Your task to perform on an android device: Turn on the flashlight Image 0: 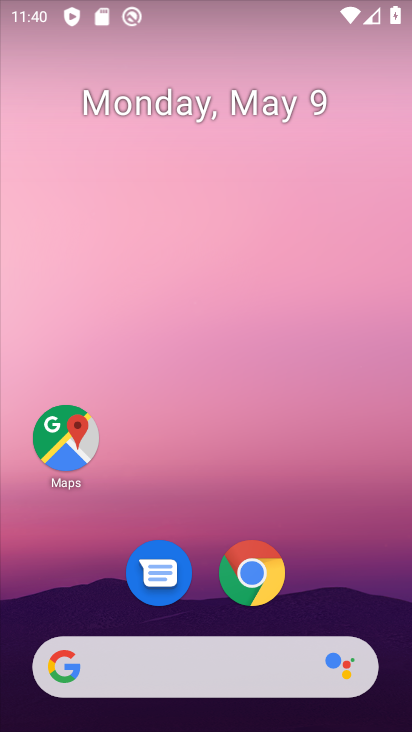
Step 0: drag from (189, 591) to (206, 65)
Your task to perform on an android device: Turn on the flashlight Image 1: 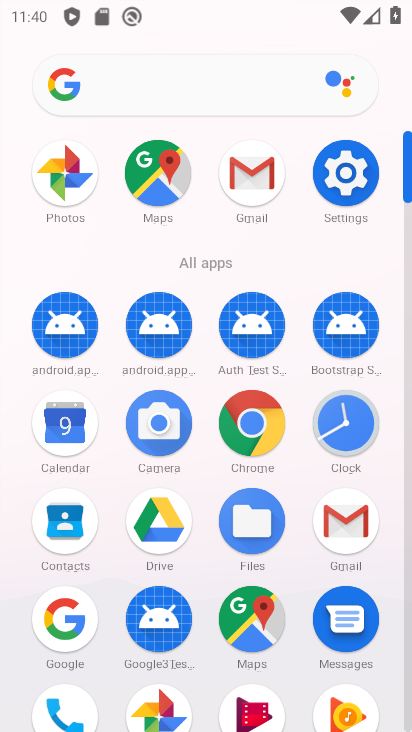
Step 1: click (342, 174)
Your task to perform on an android device: Turn on the flashlight Image 2: 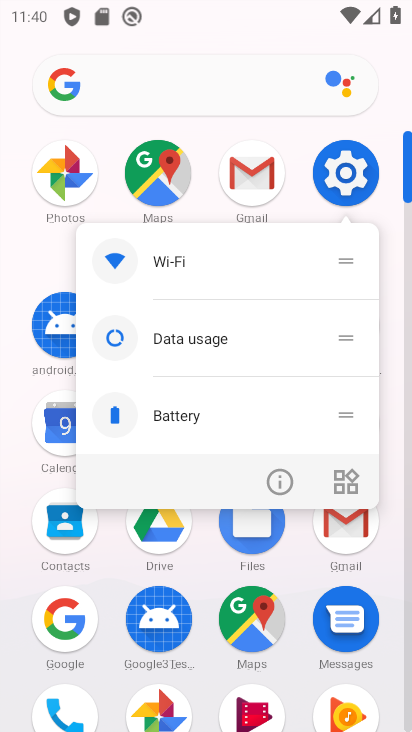
Step 2: click (274, 476)
Your task to perform on an android device: Turn on the flashlight Image 3: 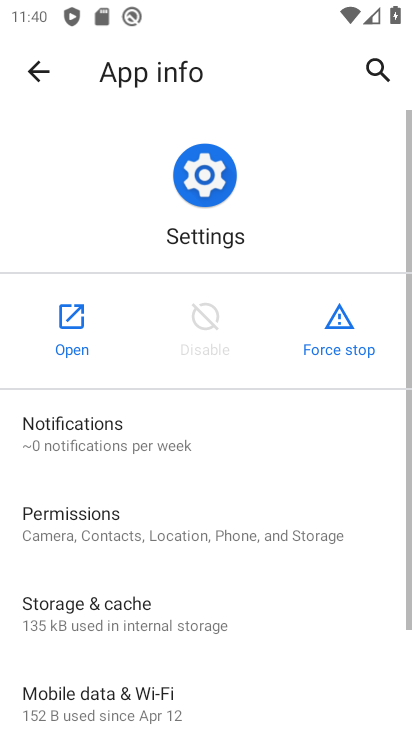
Step 3: click (67, 336)
Your task to perform on an android device: Turn on the flashlight Image 4: 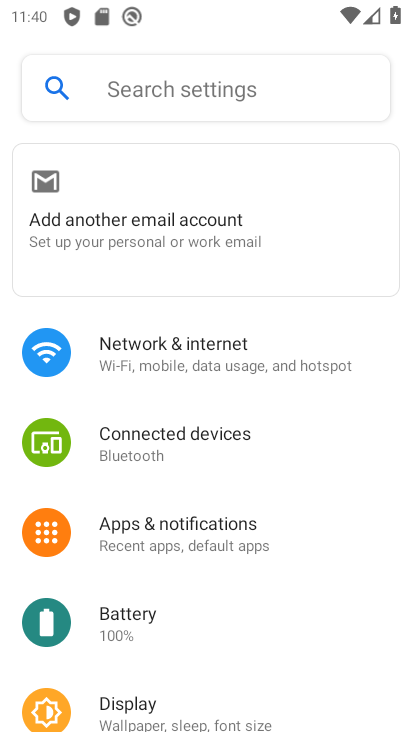
Step 4: click (258, 87)
Your task to perform on an android device: Turn on the flashlight Image 5: 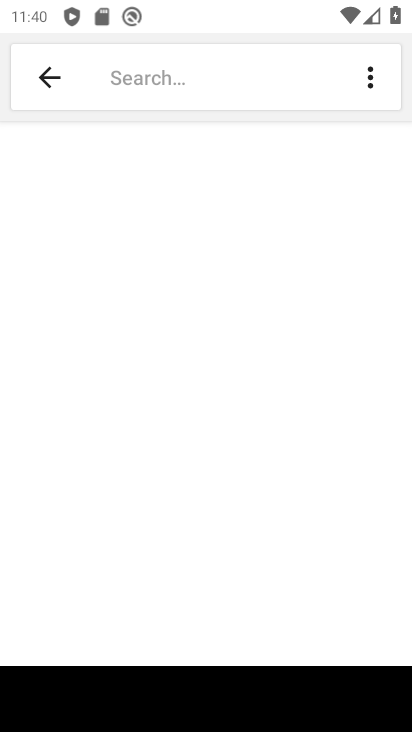
Step 5: type "flashlight"
Your task to perform on an android device: Turn on the flashlight Image 6: 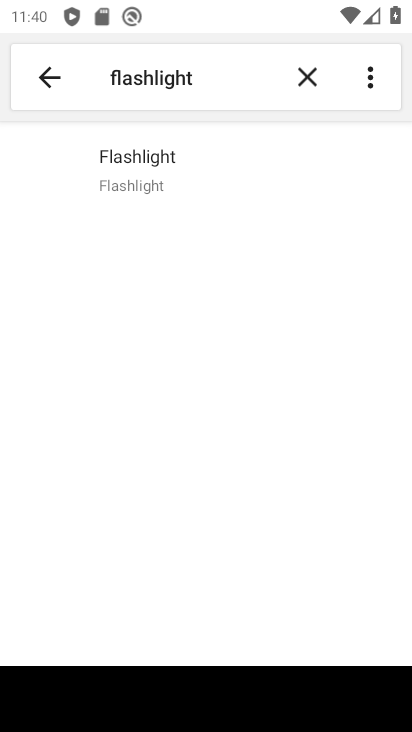
Step 6: click (177, 158)
Your task to perform on an android device: Turn on the flashlight Image 7: 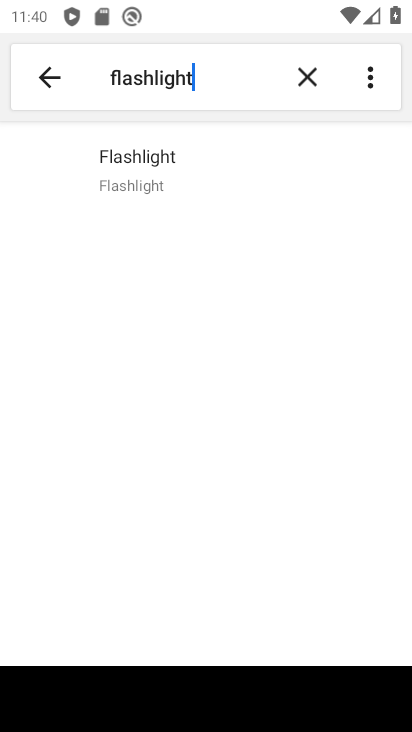
Step 7: click (184, 162)
Your task to perform on an android device: Turn on the flashlight Image 8: 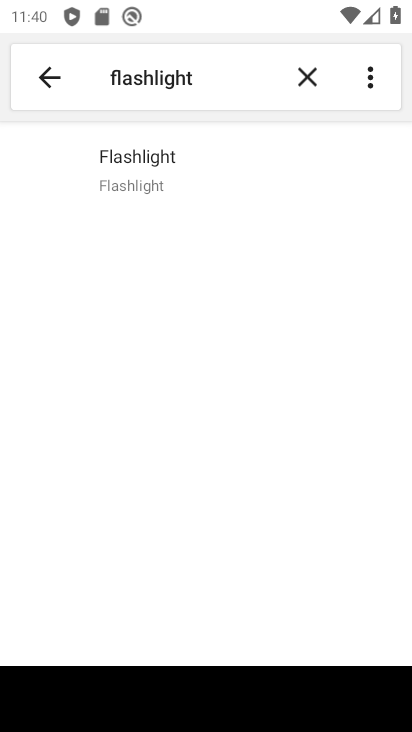
Step 8: task complete